Your task to perform on an android device: Show me popular videos on Youtube Image 0: 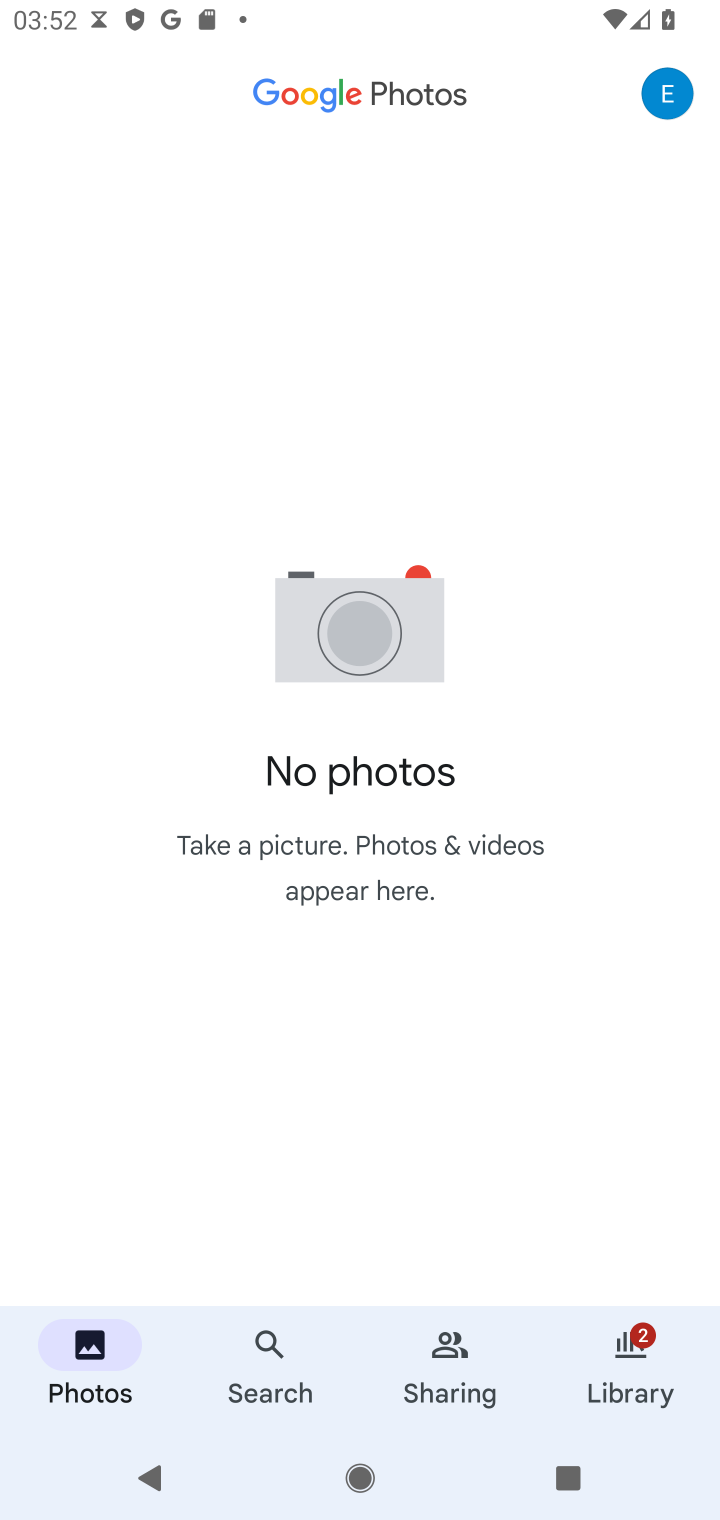
Step 0: press home button
Your task to perform on an android device: Show me popular videos on Youtube Image 1: 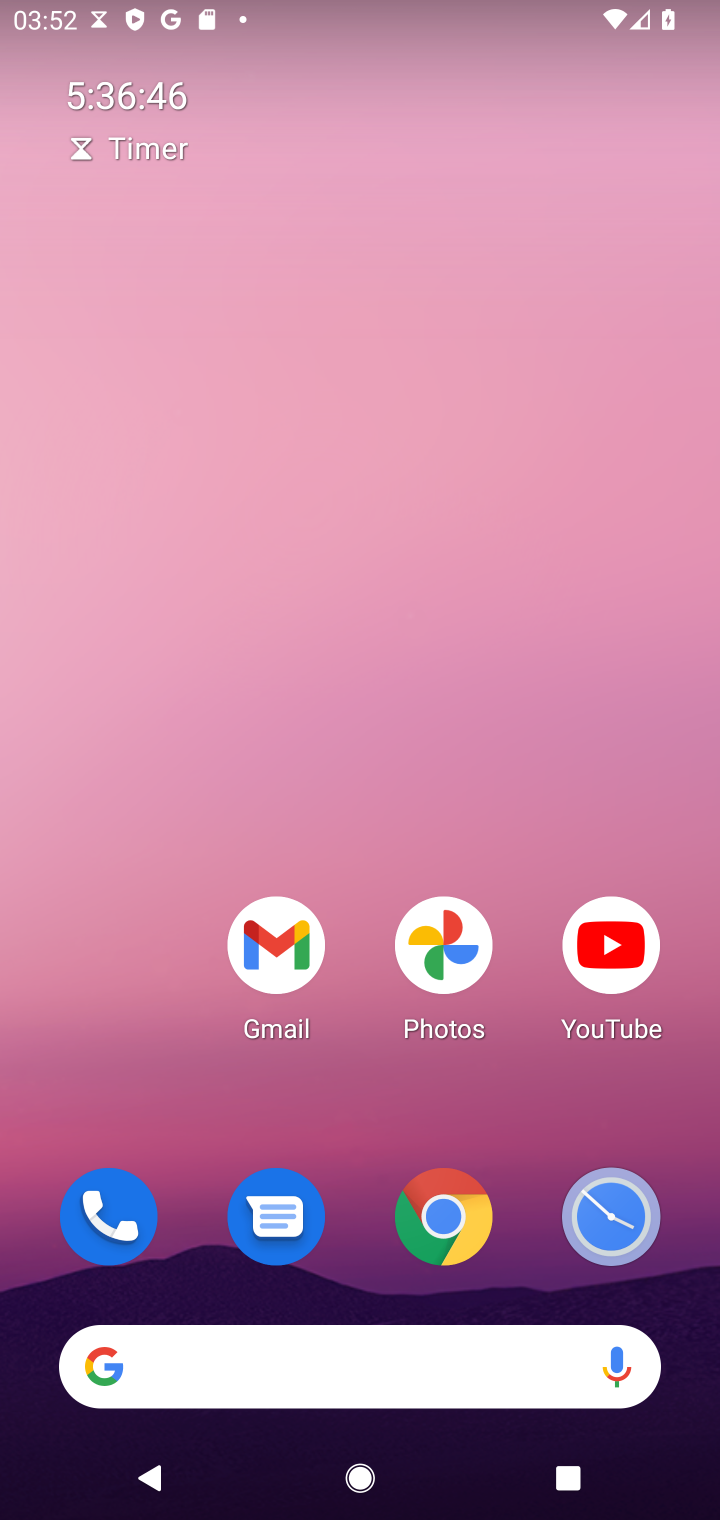
Step 1: click (634, 942)
Your task to perform on an android device: Show me popular videos on Youtube Image 2: 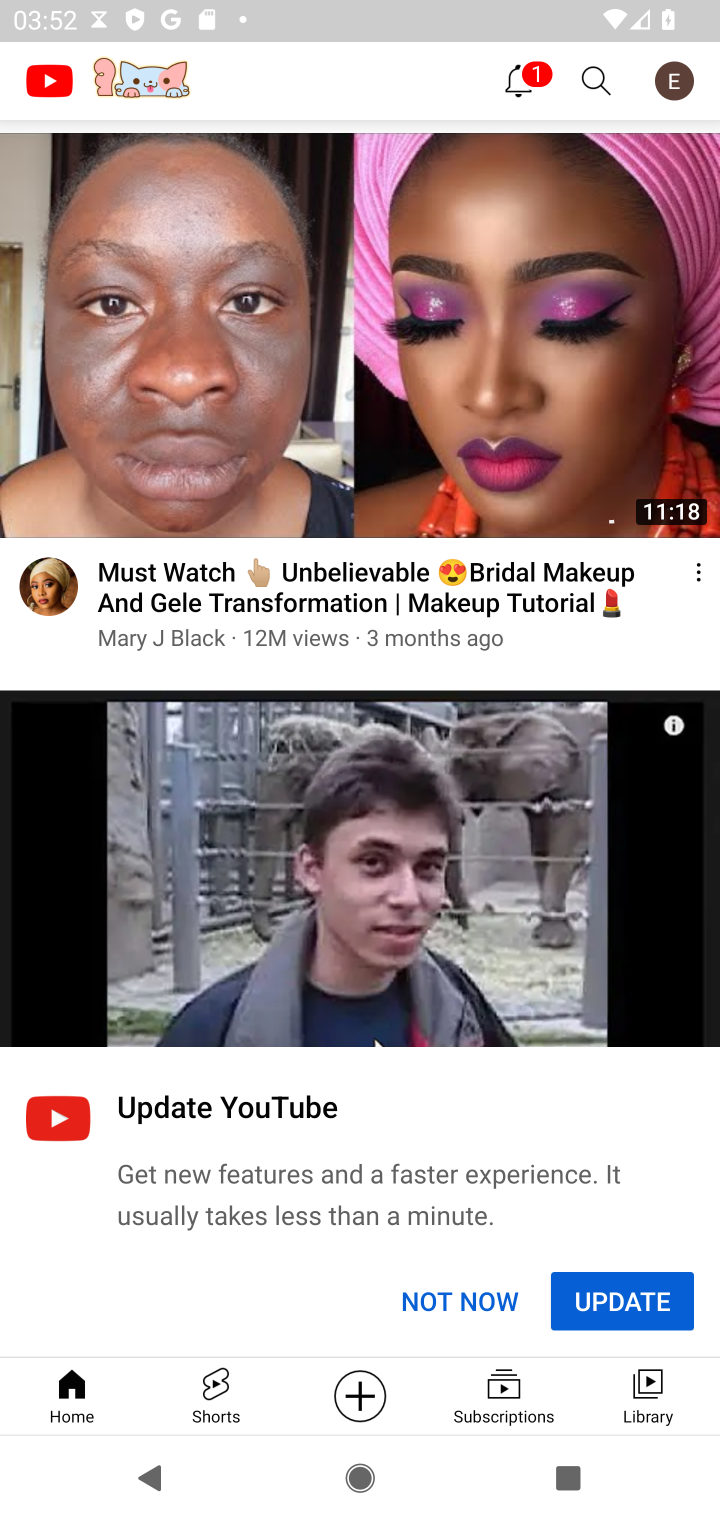
Step 2: drag from (288, 342) to (308, 953)
Your task to perform on an android device: Show me popular videos on Youtube Image 3: 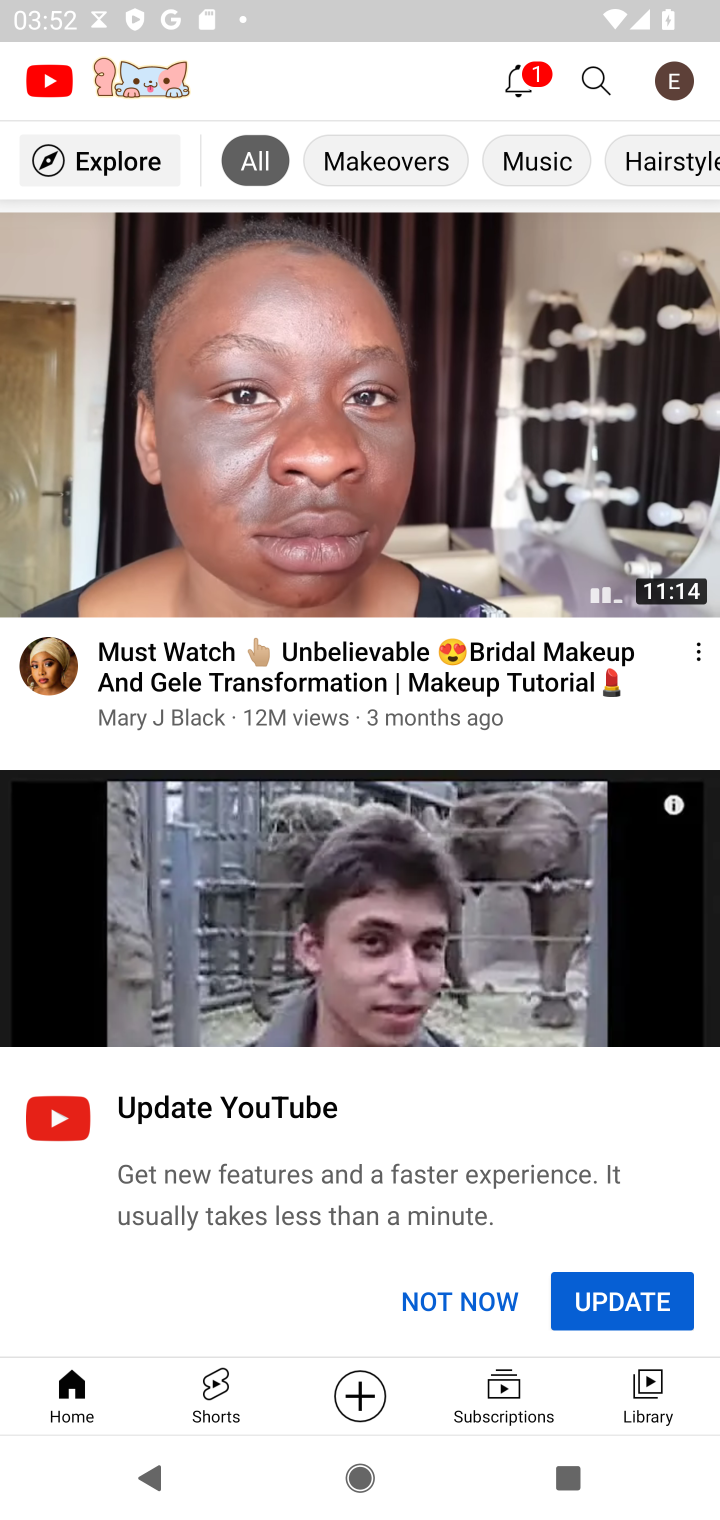
Step 3: click (115, 155)
Your task to perform on an android device: Show me popular videos on Youtube Image 4: 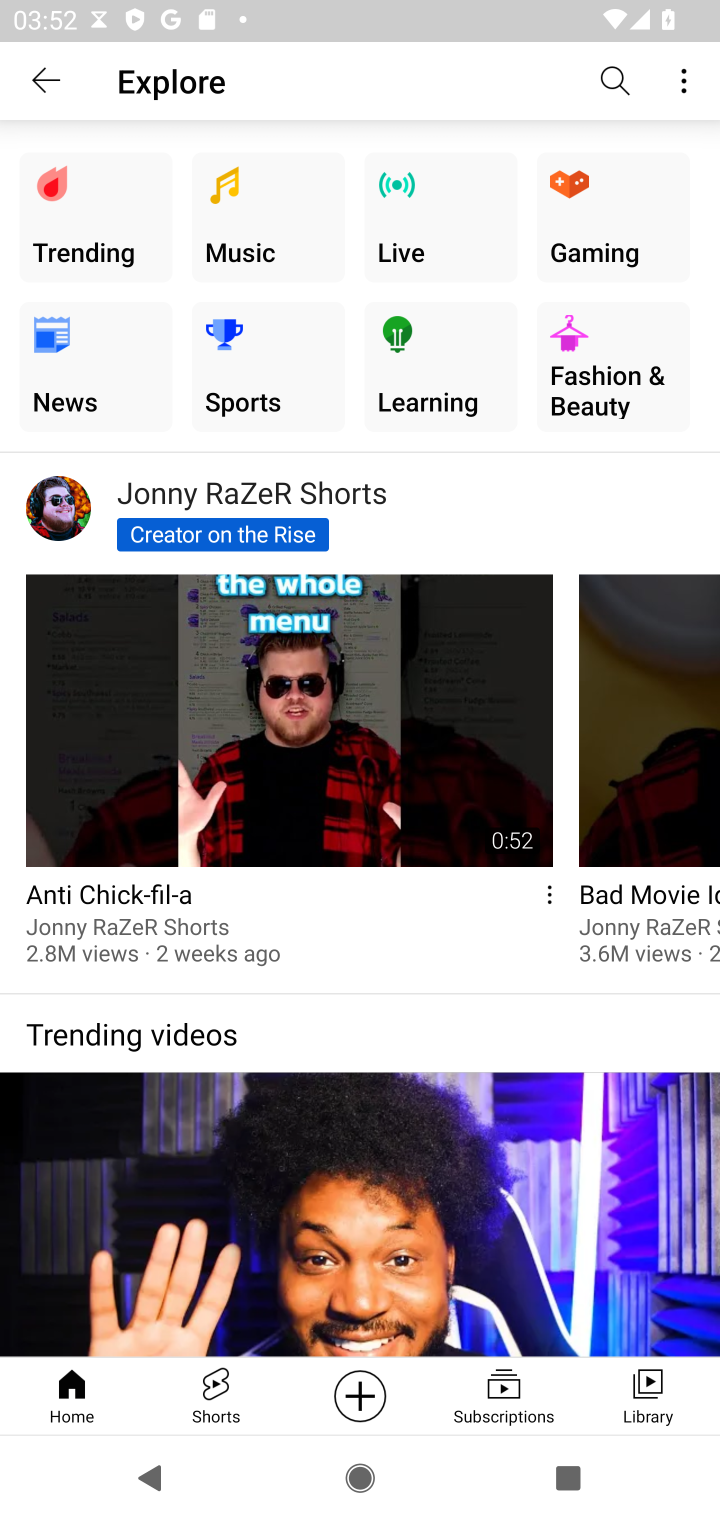
Step 4: click (84, 239)
Your task to perform on an android device: Show me popular videos on Youtube Image 5: 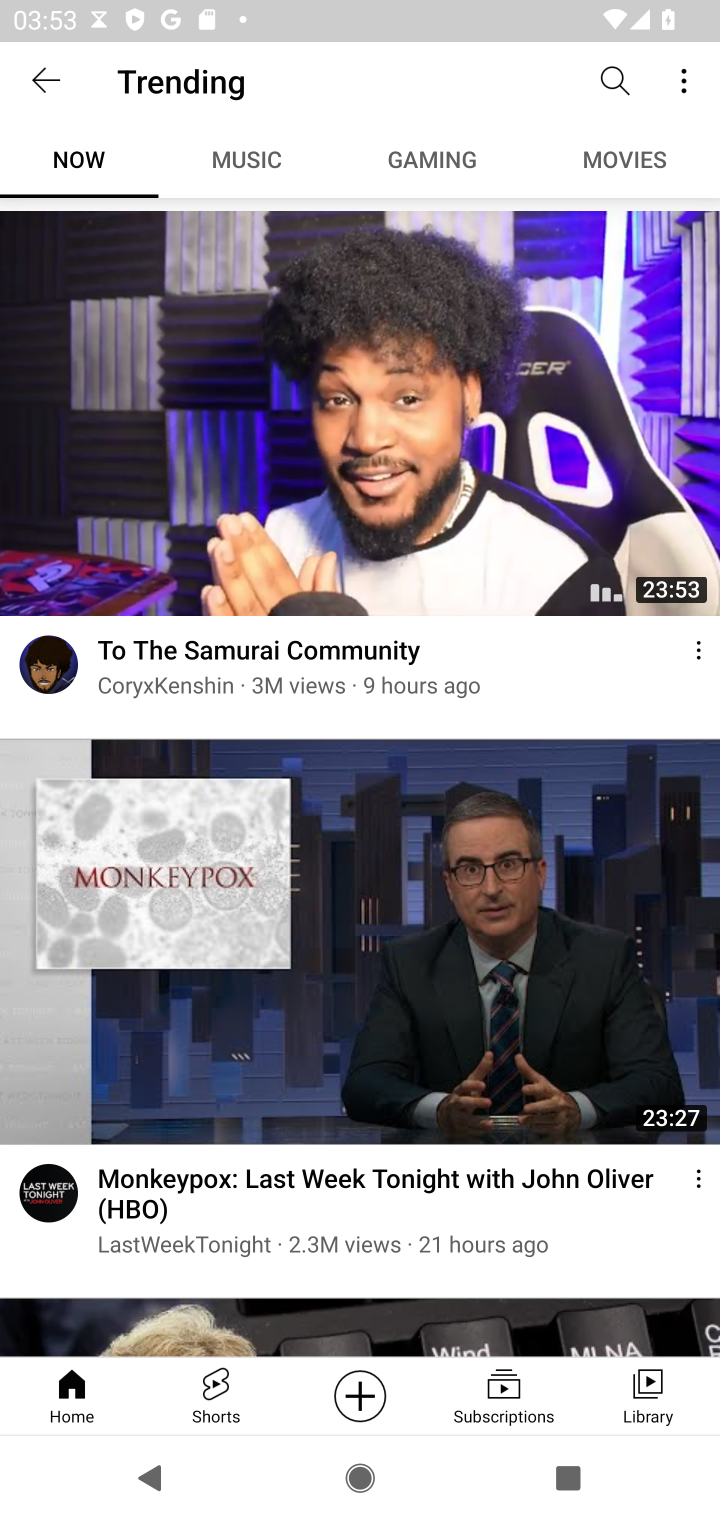
Step 5: task complete